Your task to perform on an android device: empty trash in google photos Image 0: 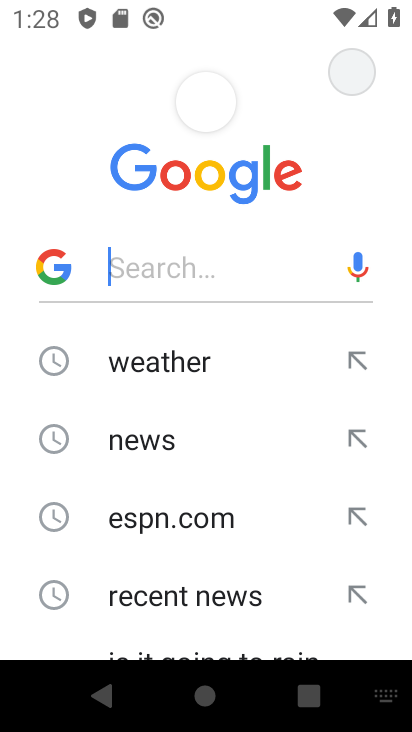
Step 0: press home button
Your task to perform on an android device: empty trash in google photos Image 1: 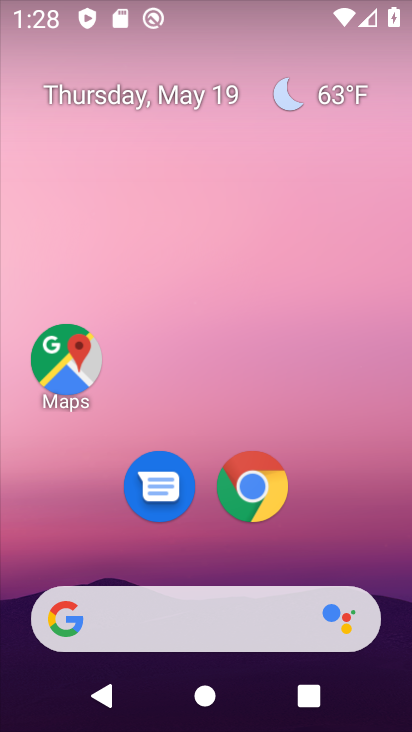
Step 1: drag from (346, 521) to (275, 32)
Your task to perform on an android device: empty trash in google photos Image 2: 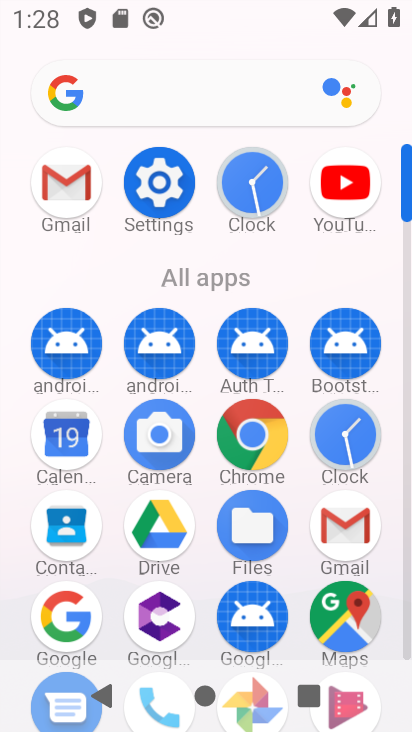
Step 2: drag from (296, 630) to (268, 311)
Your task to perform on an android device: empty trash in google photos Image 3: 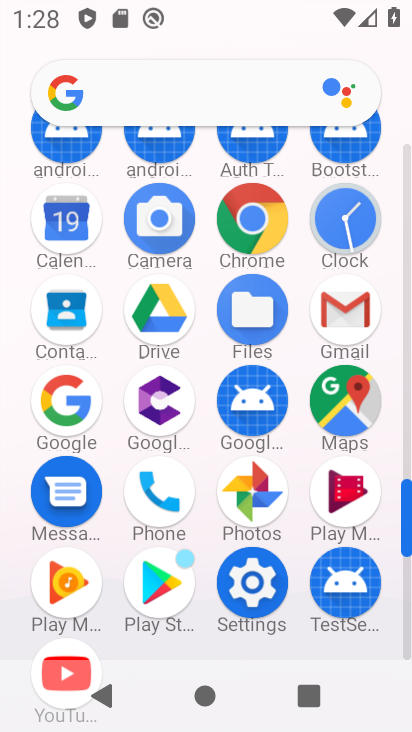
Step 3: click (266, 503)
Your task to perform on an android device: empty trash in google photos Image 4: 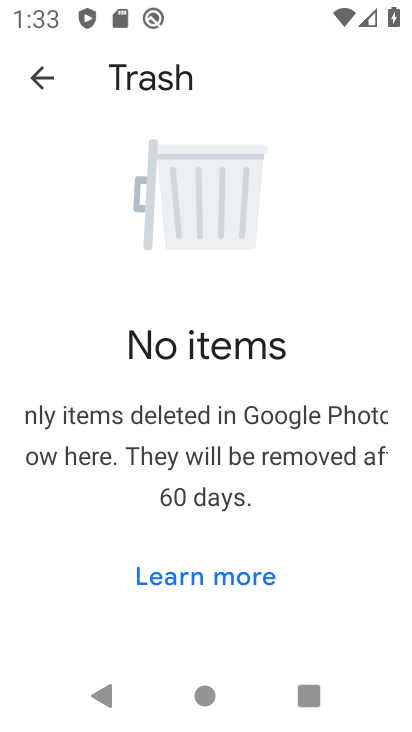
Step 4: task complete